Your task to perform on an android device: turn off location history Image 0: 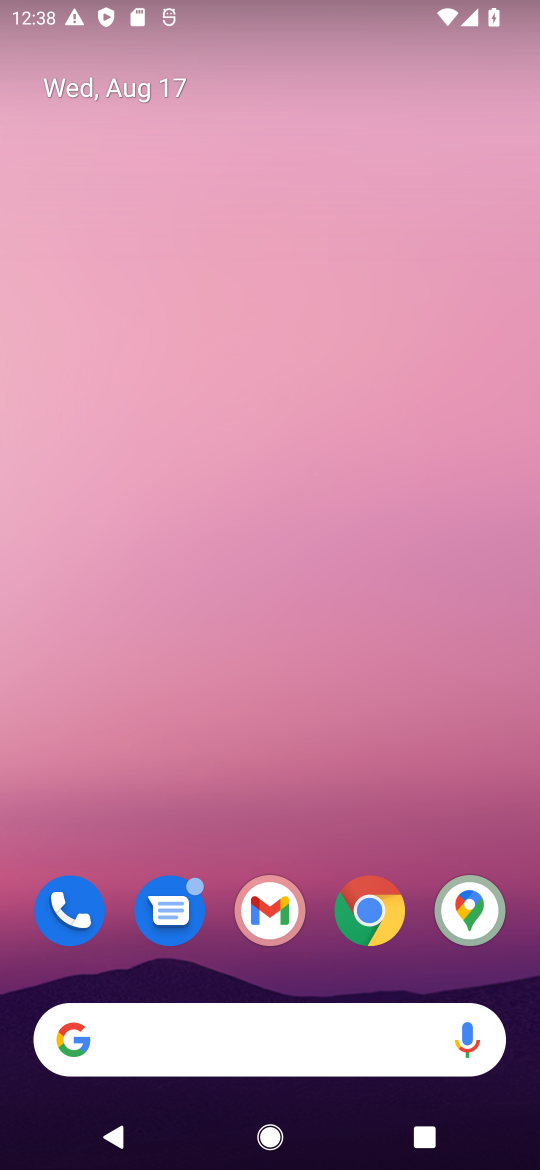
Step 0: drag from (288, 985) to (347, 124)
Your task to perform on an android device: turn off location history Image 1: 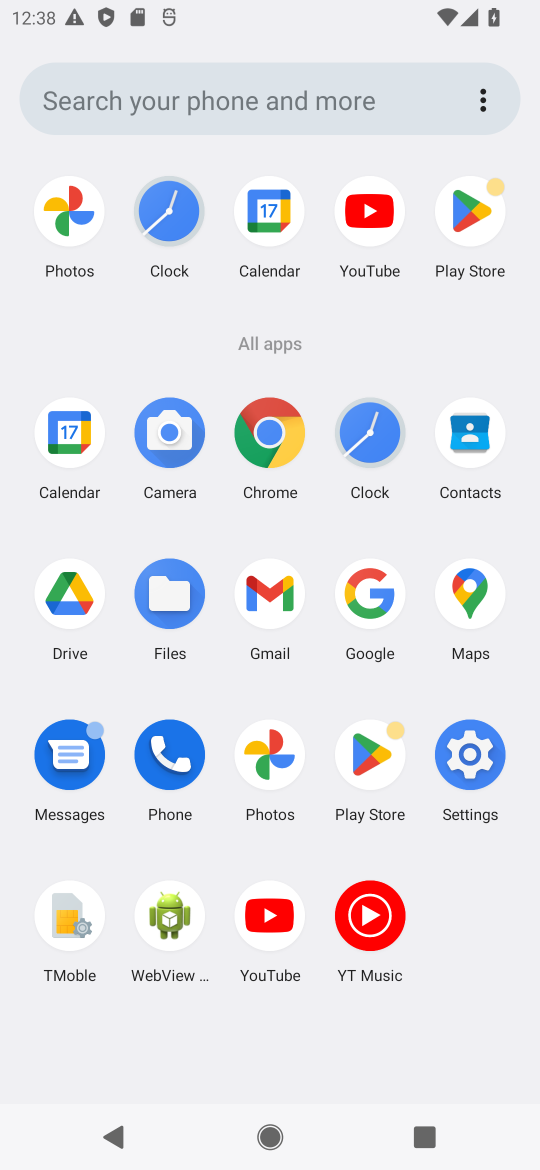
Step 1: click (467, 777)
Your task to perform on an android device: turn off location history Image 2: 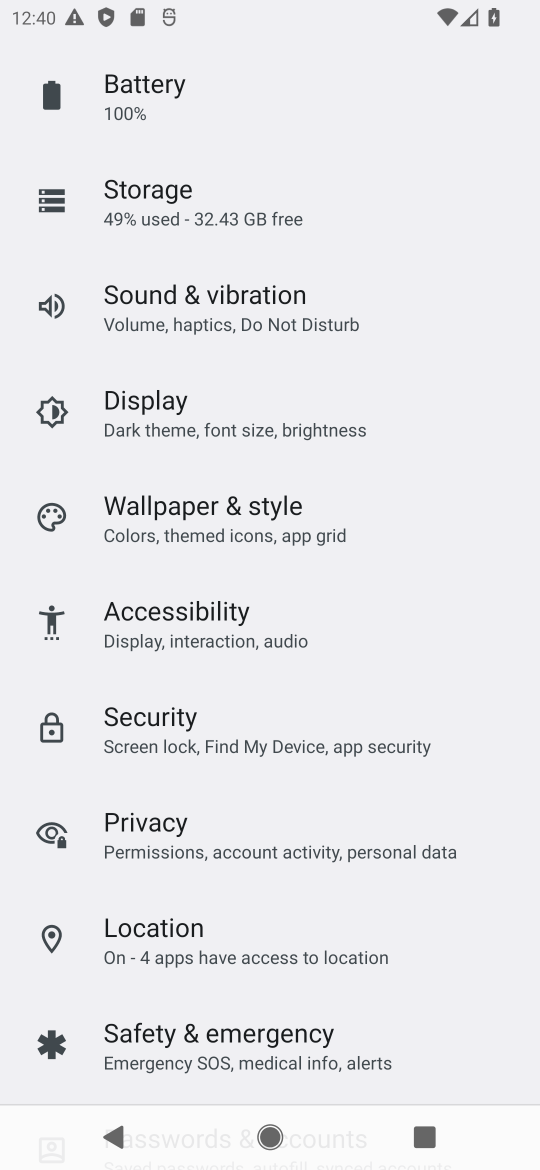
Step 2: click (246, 943)
Your task to perform on an android device: turn off location history Image 3: 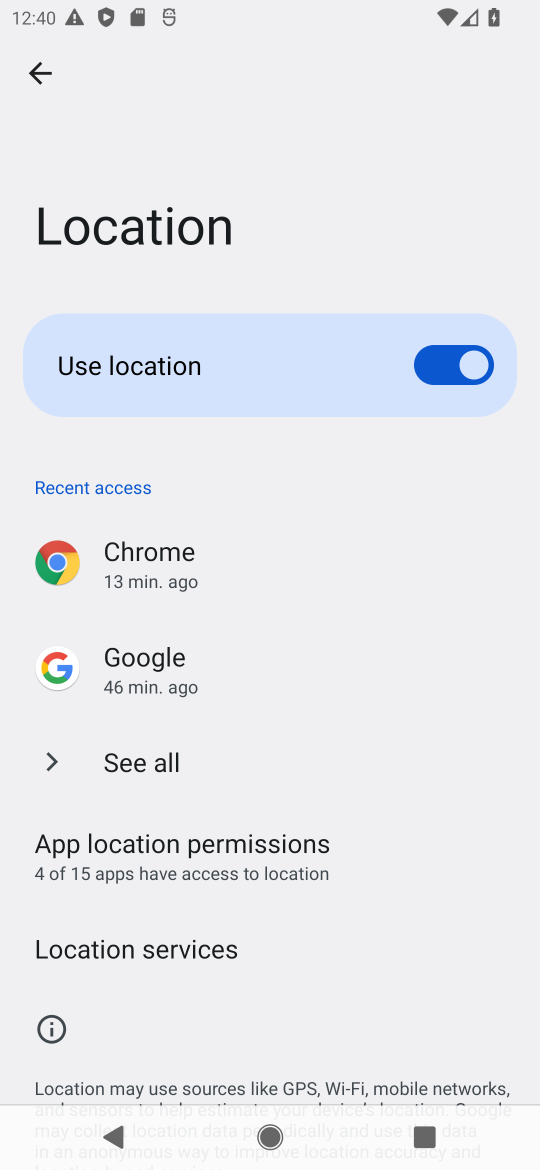
Step 3: click (140, 948)
Your task to perform on an android device: turn off location history Image 4: 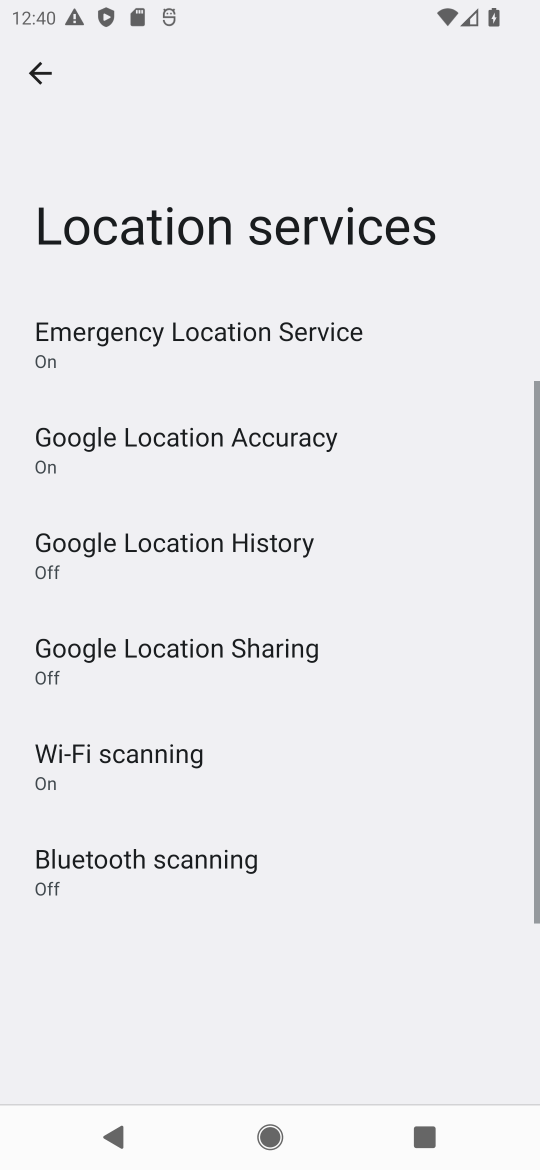
Step 4: click (185, 524)
Your task to perform on an android device: turn off location history Image 5: 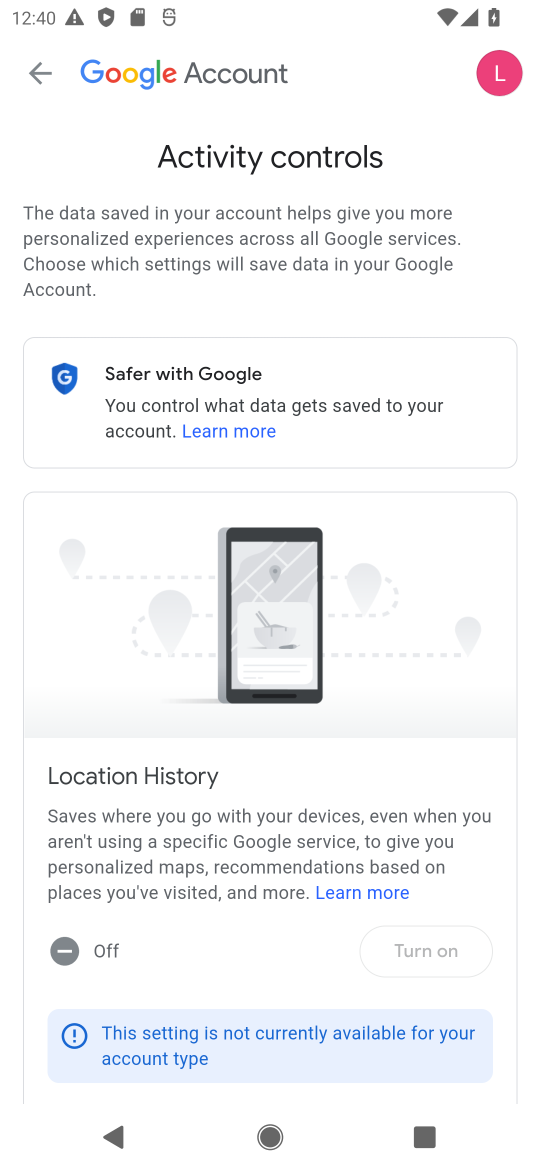
Step 5: task complete